Your task to perform on an android device: Search for "macbook pro" on newegg, select the first entry, and add it to the cart. Image 0: 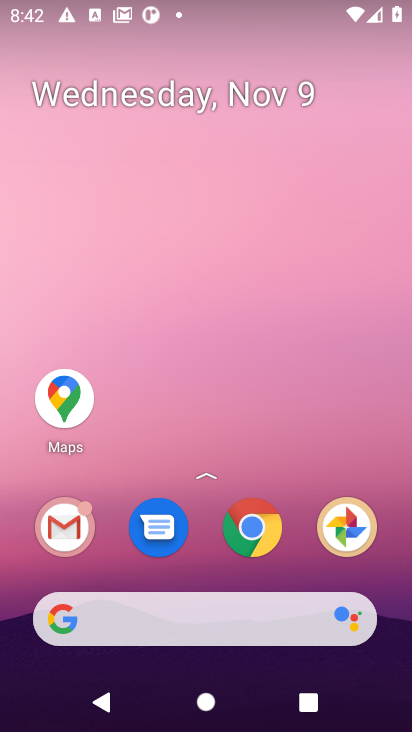
Step 0: click (258, 526)
Your task to perform on an android device: Search for "macbook pro" on newegg, select the first entry, and add it to the cart. Image 1: 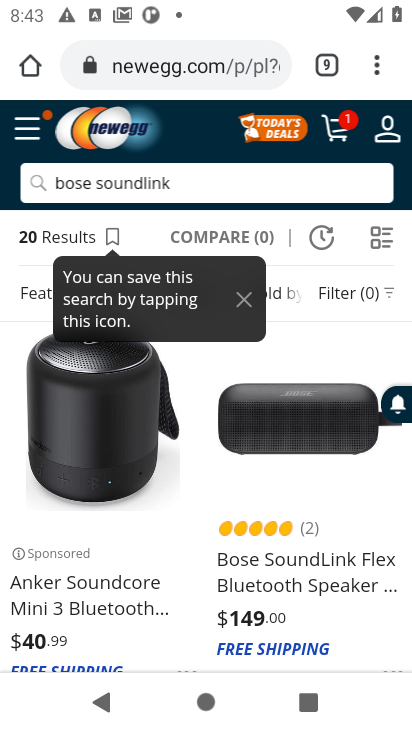
Step 1: click (169, 182)
Your task to perform on an android device: Search for "macbook pro" on newegg, select the first entry, and add it to the cart. Image 2: 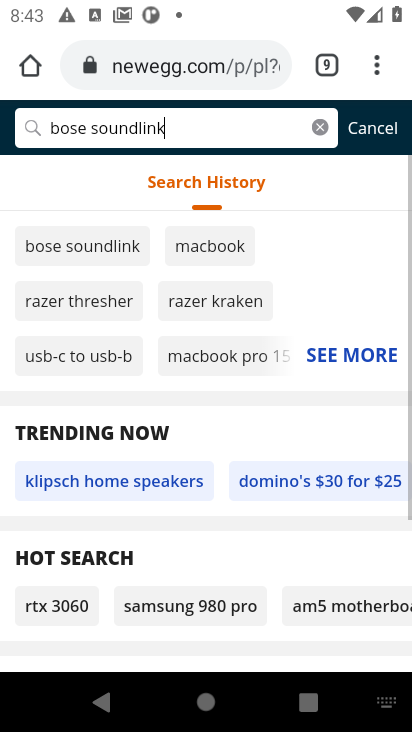
Step 2: click (328, 129)
Your task to perform on an android device: Search for "macbook pro" on newegg, select the first entry, and add it to the cart. Image 3: 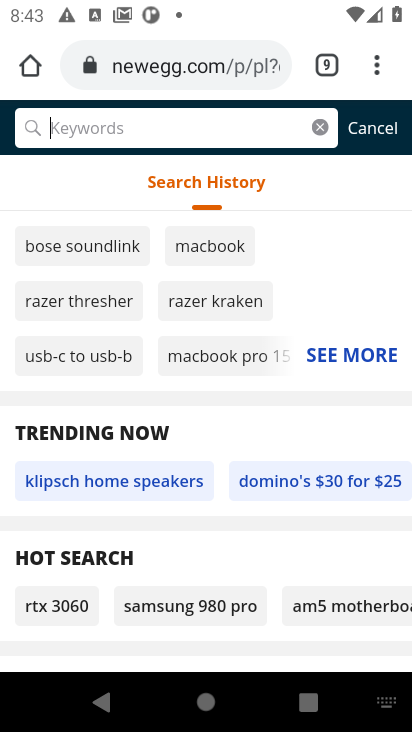
Step 3: type "macbook pro"
Your task to perform on an android device: Search for "macbook pro" on newegg, select the first entry, and add it to the cart. Image 4: 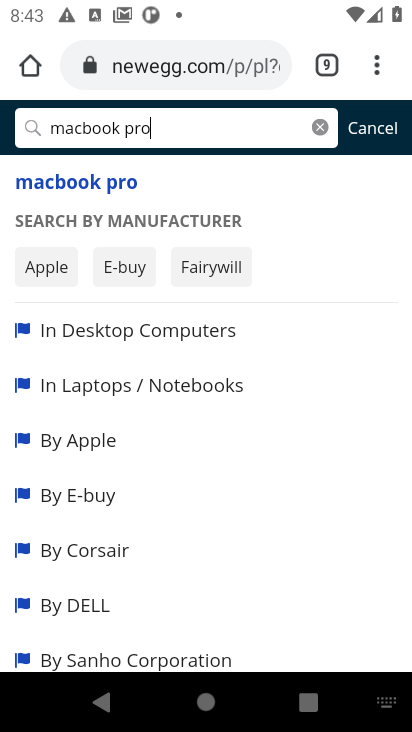
Step 4: click (85, 189)
Your task to perform on an android device: Search for "macbook pro" on newegg, select the first entry, and add it to the cart. Image 5: 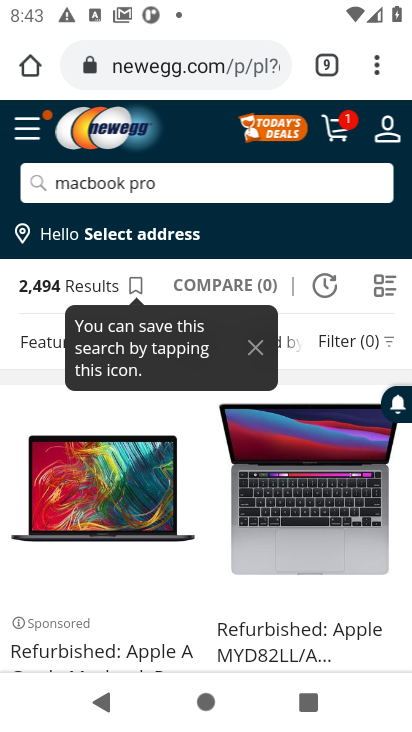
Step 5: drag from (125, 463) to (133, 318)
Your task to perform on an android device: Search for "macbook pro" on newegg, select the first entry, and add it to the cart. Image 6: 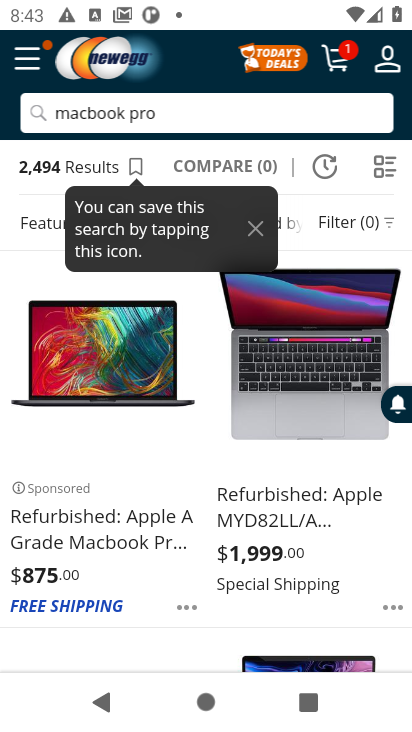
Step 6: click (103, 403)
Your task to perform on an android device: Search for "macbook pro" on newegg, select the first entry, and add it to the cart. Image 7: 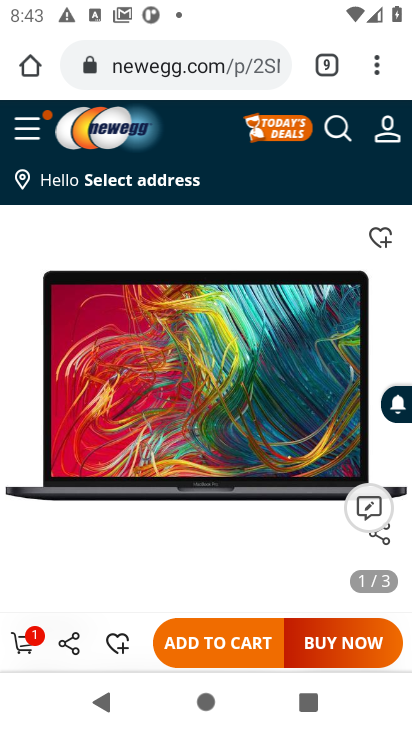
Step 7: click (223, 650)
Your task to perform on an android device: Search for "macbook pro" on newegg, select the first entry, and add it to the cart. Image 8: 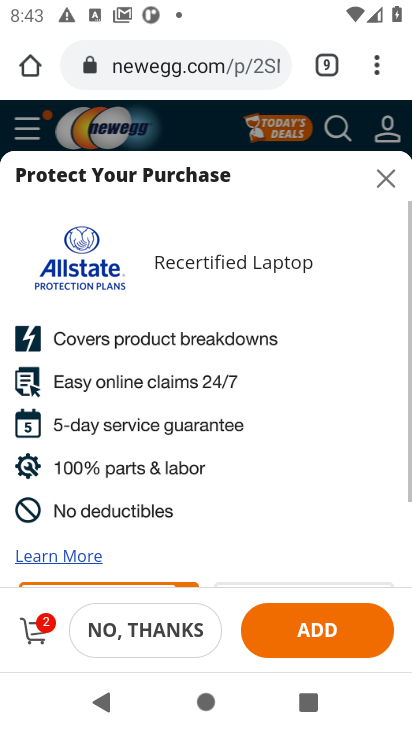
Step 8: task complete